Your task to perform on an android device: Go to CNN.com Image 0: 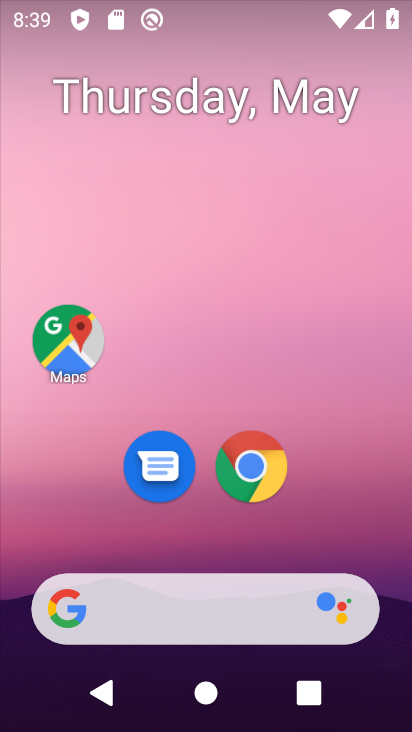
Step 0: drag from (390, 637) to (267, 33)
Your task to perform on an android device: Go to CNN.com Image 1: 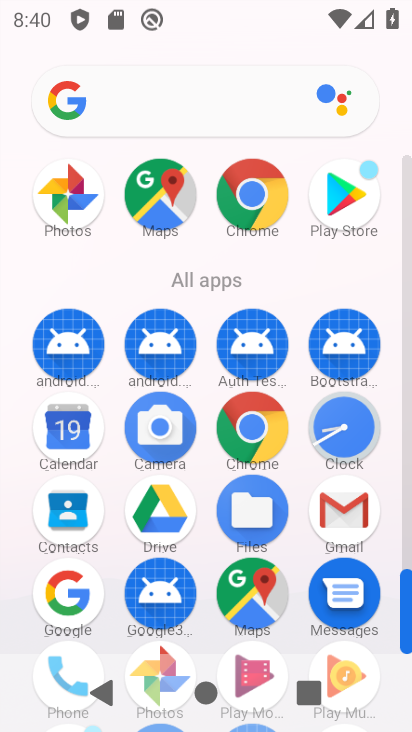
Step 1: click (70, 598)
Your task to perform on an android device: Go to CNN.com Image 2: 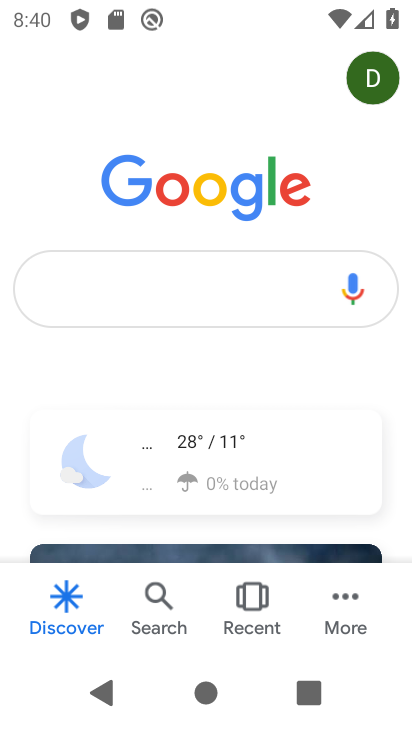
Step 2: click (157, 272)
Your task to perform on an android device: Go to CNN.com Image 3: 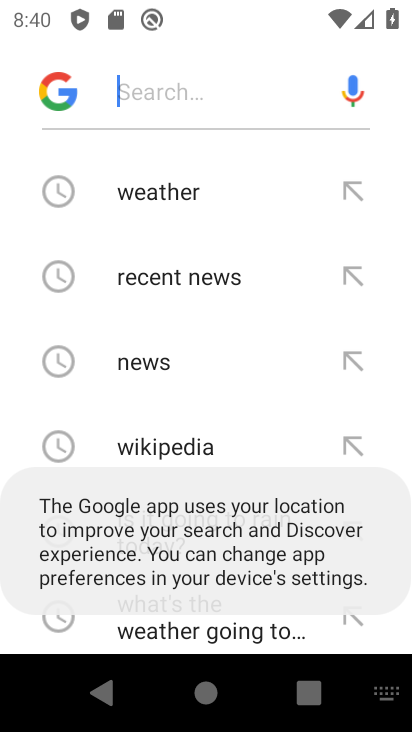
Step 3: drag from (224, 316) to (233, 225)
Your task to perform on an android device: Go to CNN.com Image 4: 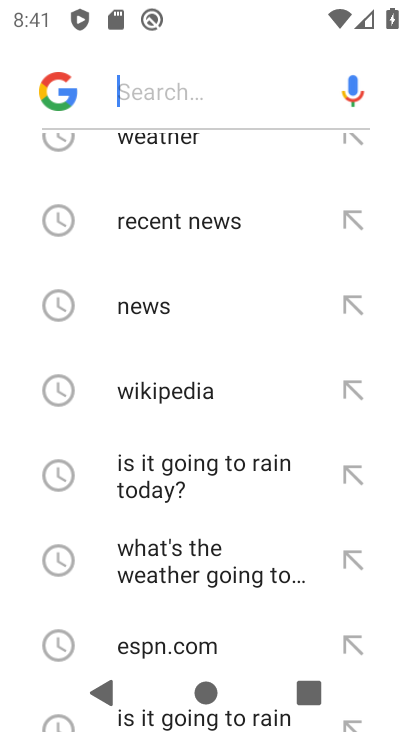
Step 4: drag from (222, 545) to (194, 152)
Your task to perform on an android device: Go to CNN.com Image 5: 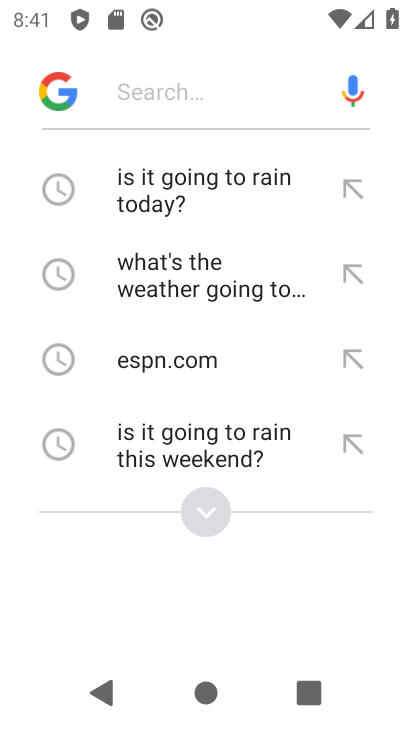
Step 5: type "cnn.com"
Your task to perform on an android device: Go to CNN.com Image 6: 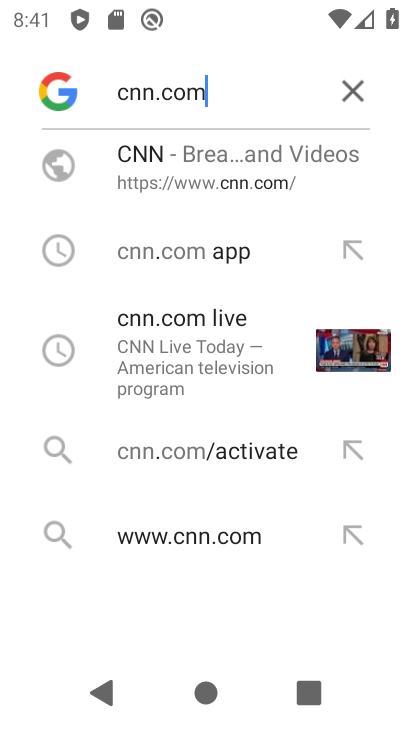
Step 6: click (139, 189)
Your task to perform on an android device: Go to CNN.com Image 7: 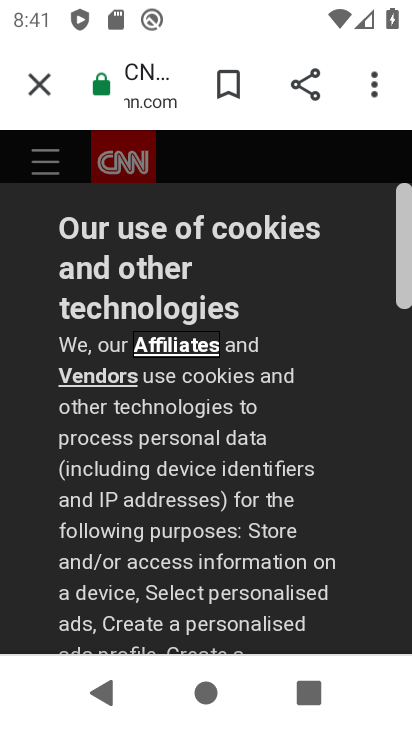
Step 7: task complete